Your task to perform on an android device: Clear the cart on walmart.com. Search for "logitech g pro" on walmart.com, select the first entry, and add it to the cart. Image 0: 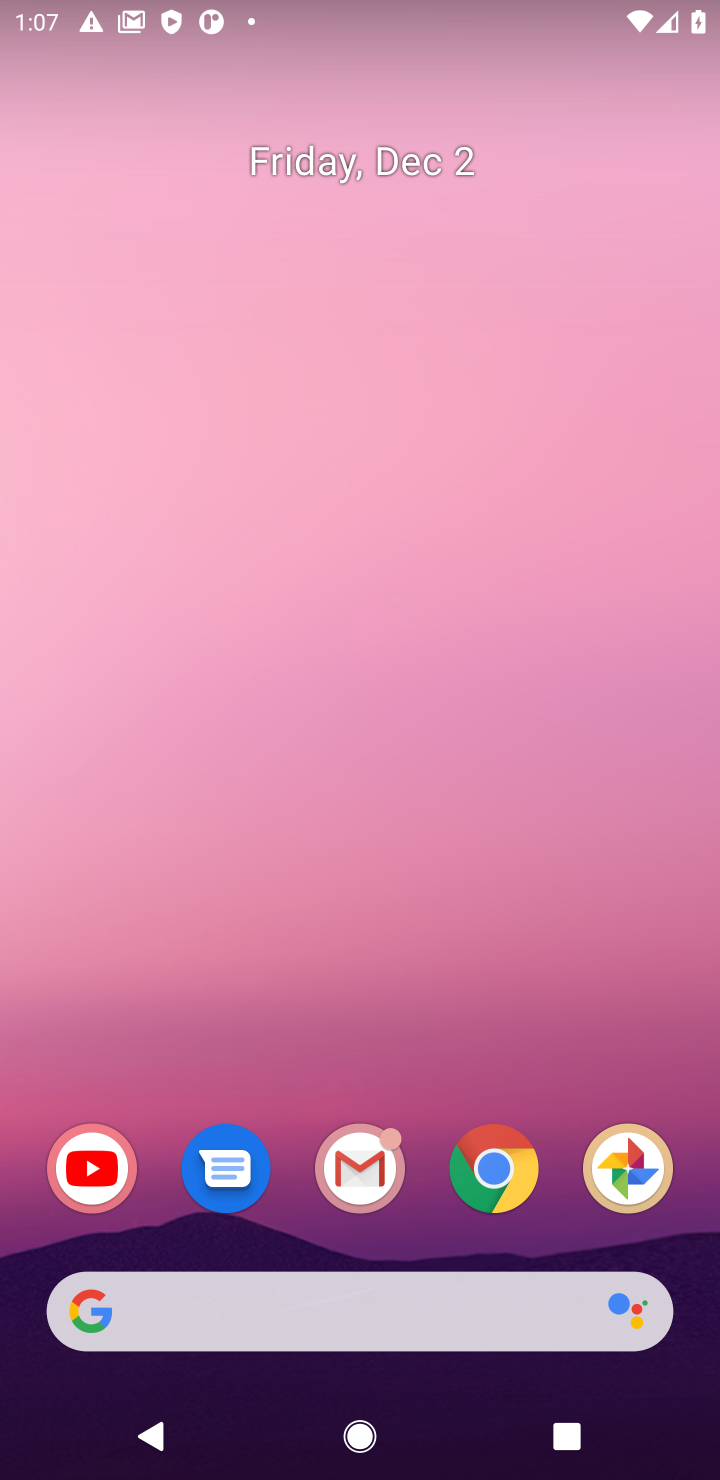
Step 0: click (499, 1175)
Your task to perform on an android device: Clear the cart on walmart.com. Search for "logitech g pro" on walmart.com, select the first entry, and add it to the cart. Image 1: 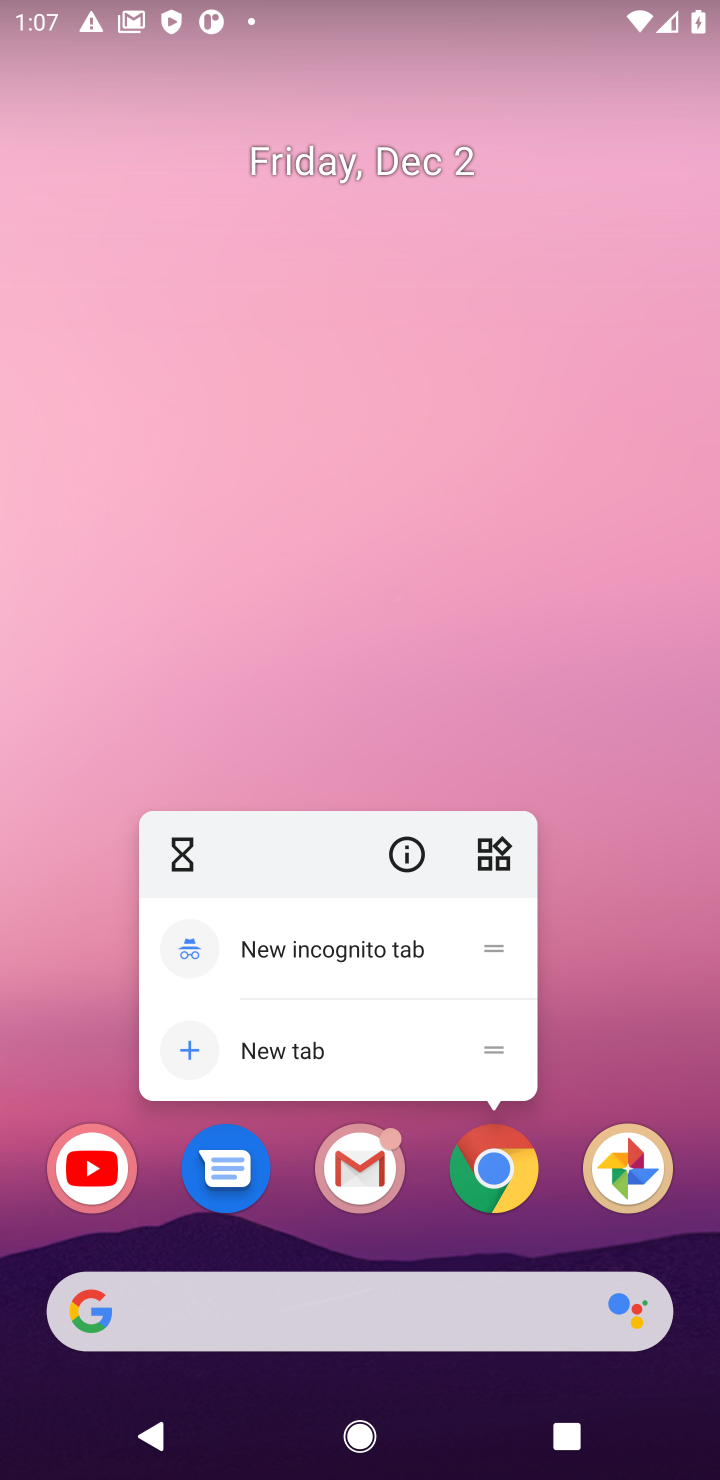
Step 1: click (499, 1175)
Your task to perform on an android device: Clear the cart on walmart.com. Search for "logitech g pro" on walmart.com, select the first entry, and add it to the cart. Image 2: 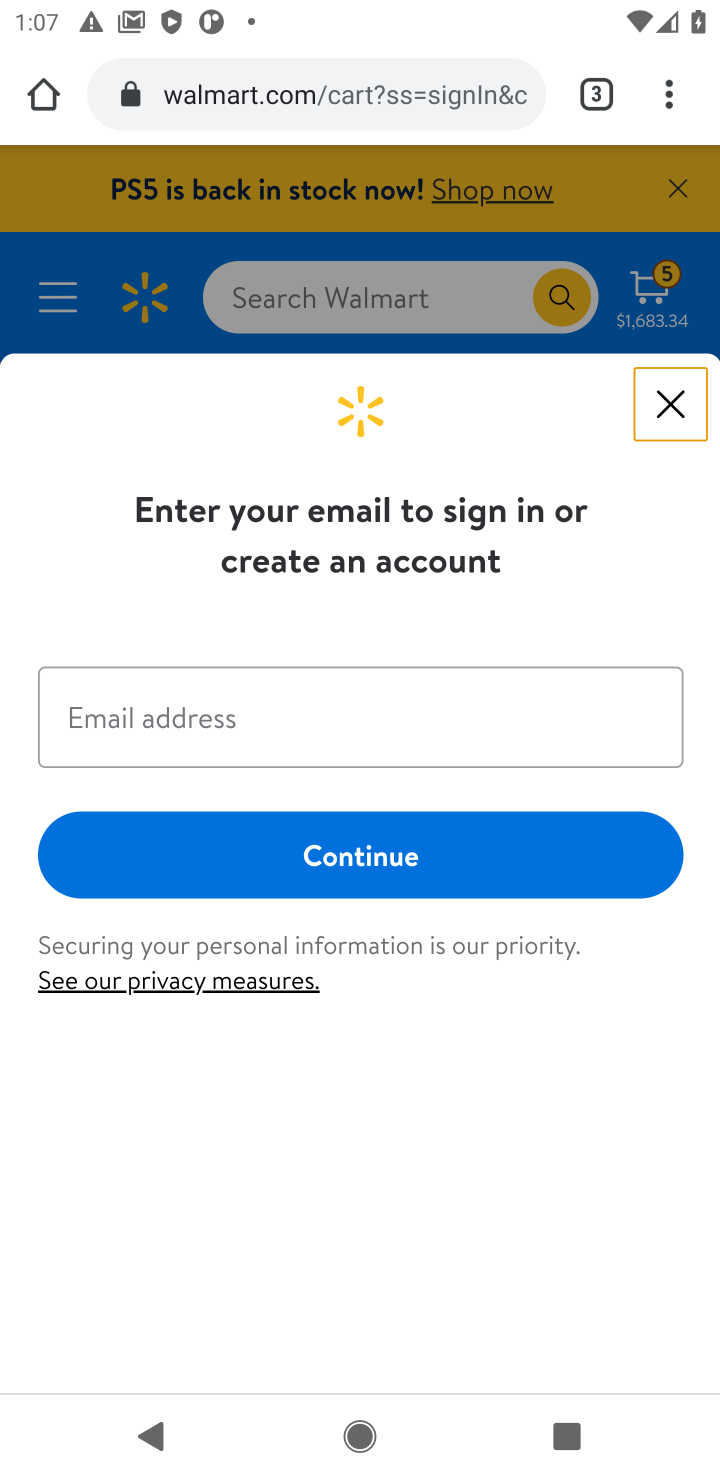
Step 2: click (663, 400)
Your task to perform on an android device: Clear the cart on walmart.com. Search for "logitech g pro" on walmart.com, select the first entry, and add it to the cart. Image 3: 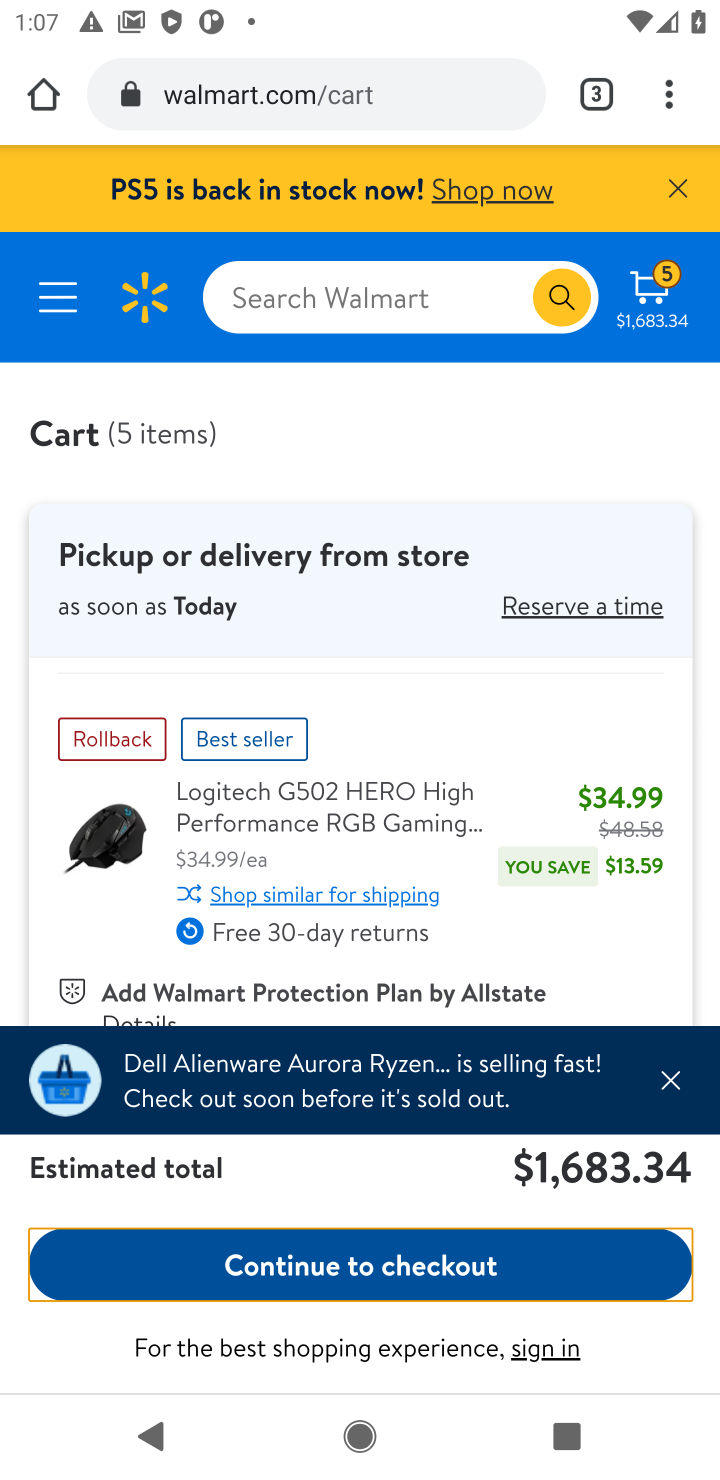
Step 3: drag from (461, 700) to (431, 278)
Your task to perform on an android device: Clear the cart on walmart.com. Search for "logitech g pro" on walmart.com, select the first entry, and add it to the cart. Image 4: 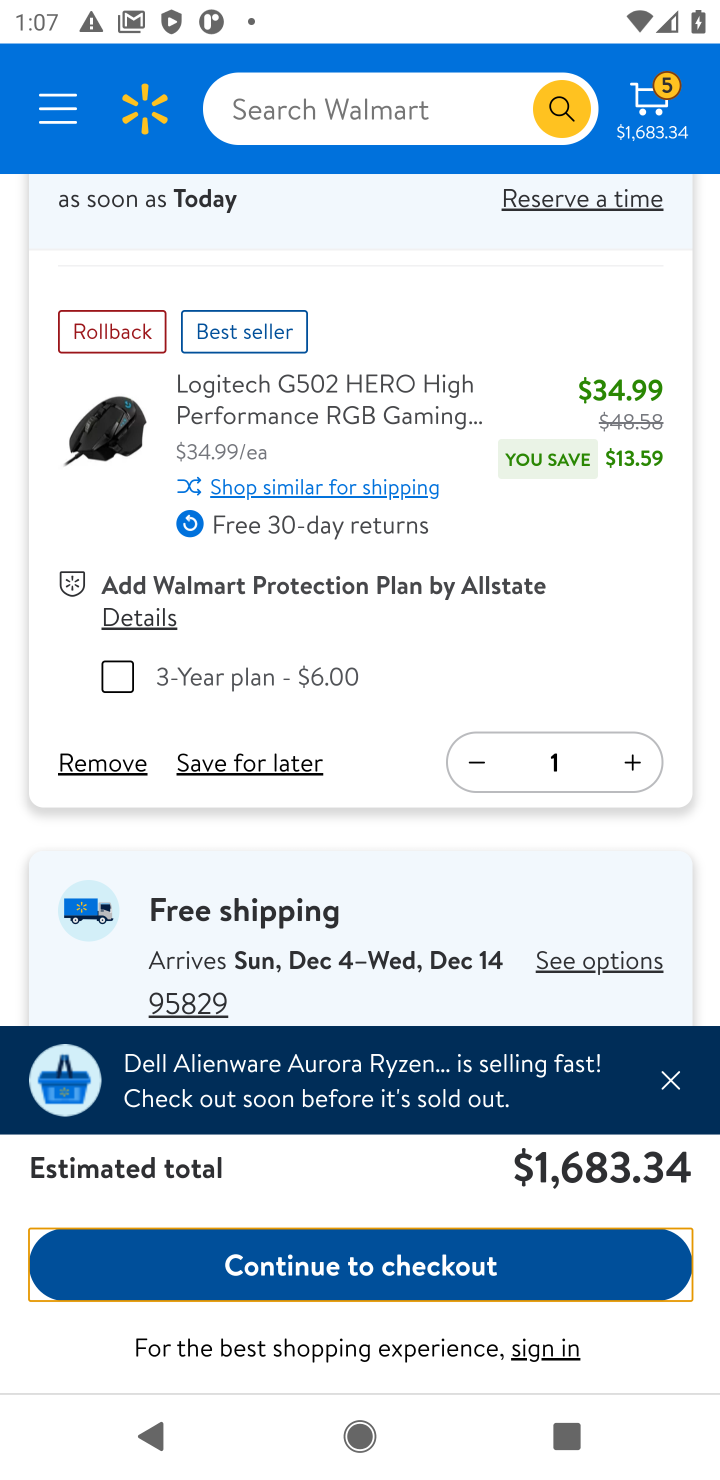
Step 4: click (674, 1083)
Your task to perform on an android device: Clear the cart on walmart.com. Search for "logitech g pro" on walmart.com, select the first entry, and add it to the cart. Image 5: 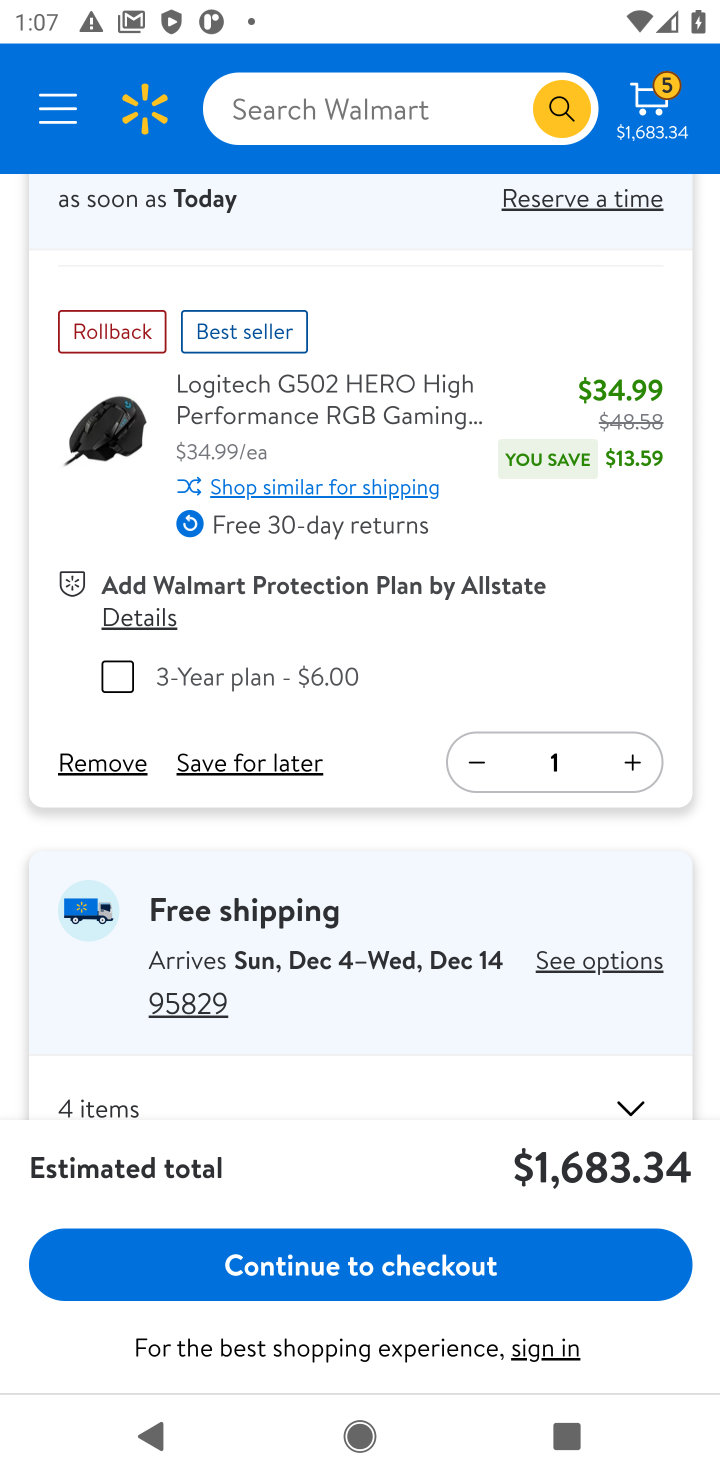
Step 5: click (87, 776)
Your task to perform on an android device: Clear the cart on walmart.com. Search for "logitech g pro" on walmart.com, select the first entry, and add it to the cart. Image 6: 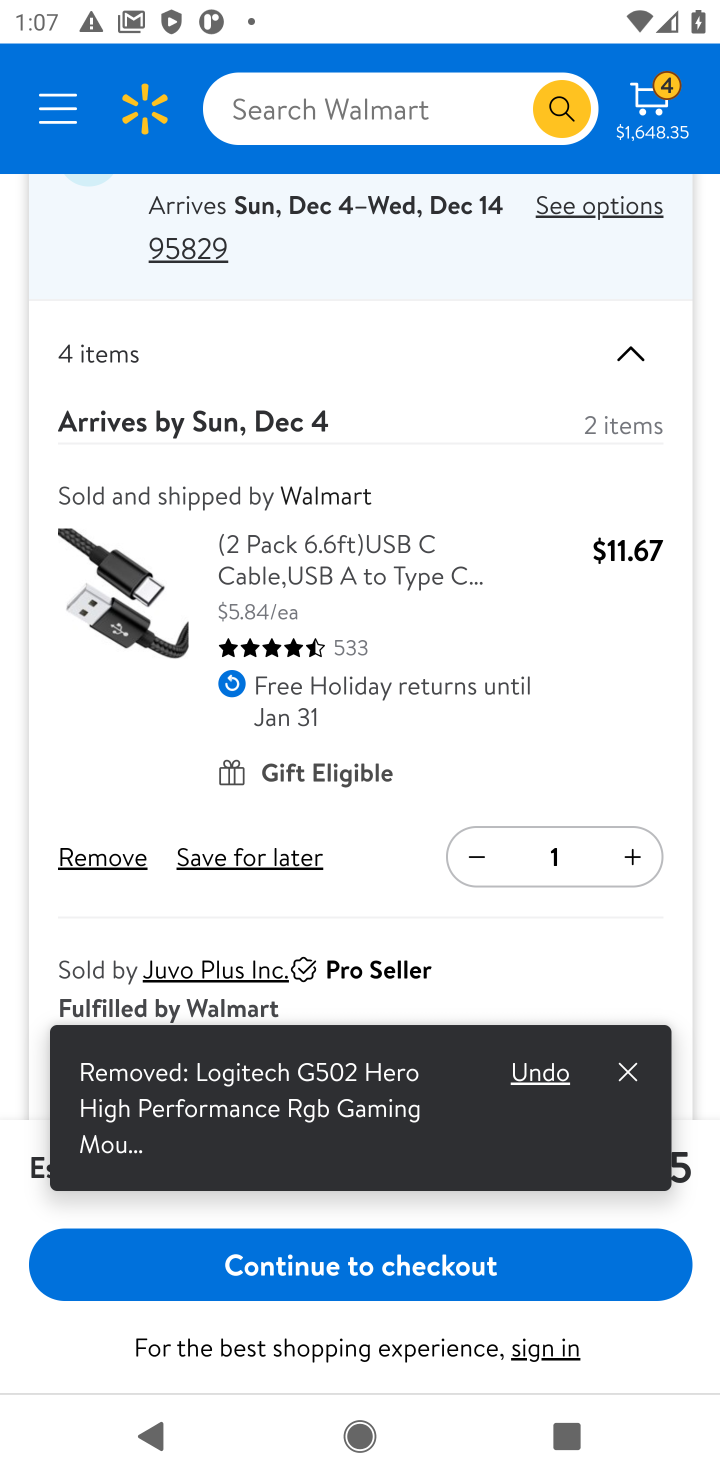
Step 6: click (101, 852)
Your task to perform on an android device: Clear the cart on walmart.com. Search for "logitech g pro" on walmart.com, select the first entry, and add it to the cart. Image 7: 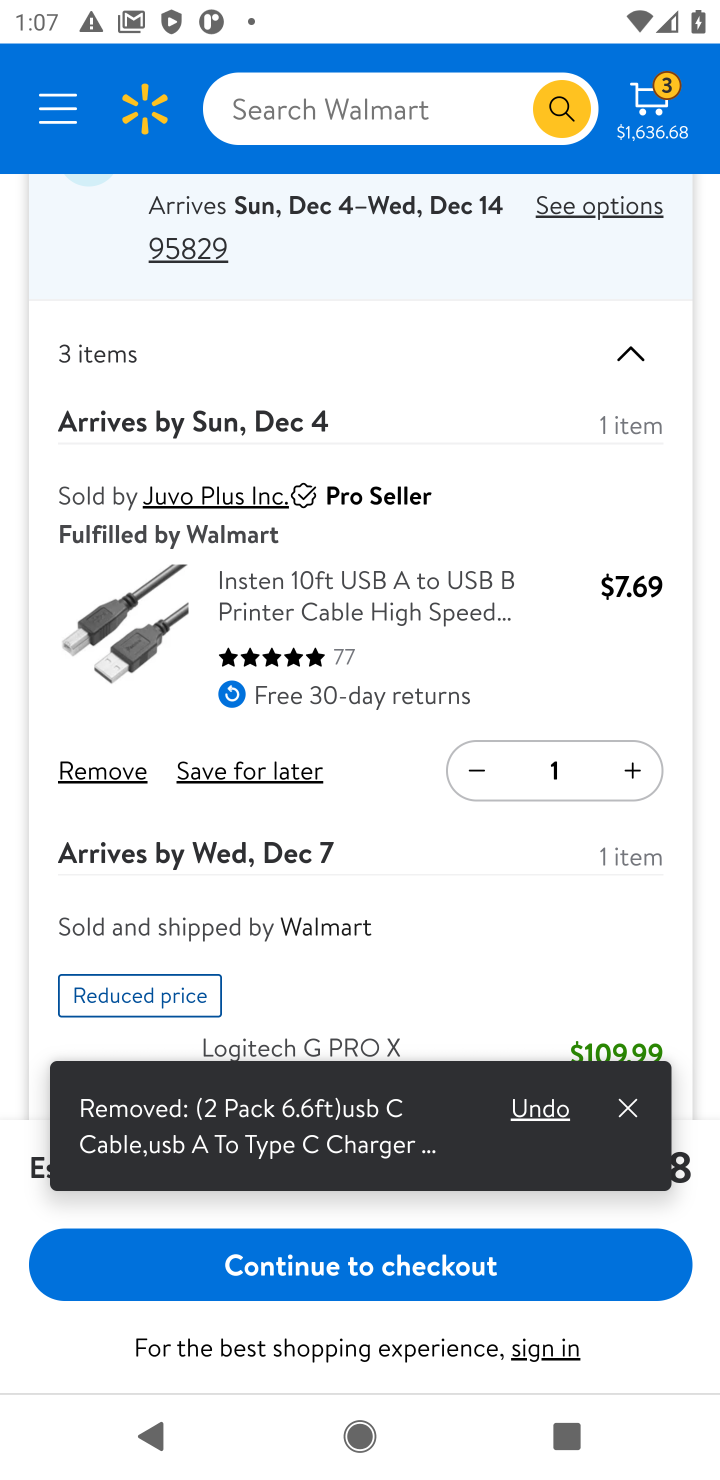
Step 7: click (103, 777)
Your task to perform on an android device: Clear the cart on walmart.com. Search for "logitech g pro" on walmart.com, select the first entry, and add it to the cart. Image 8: 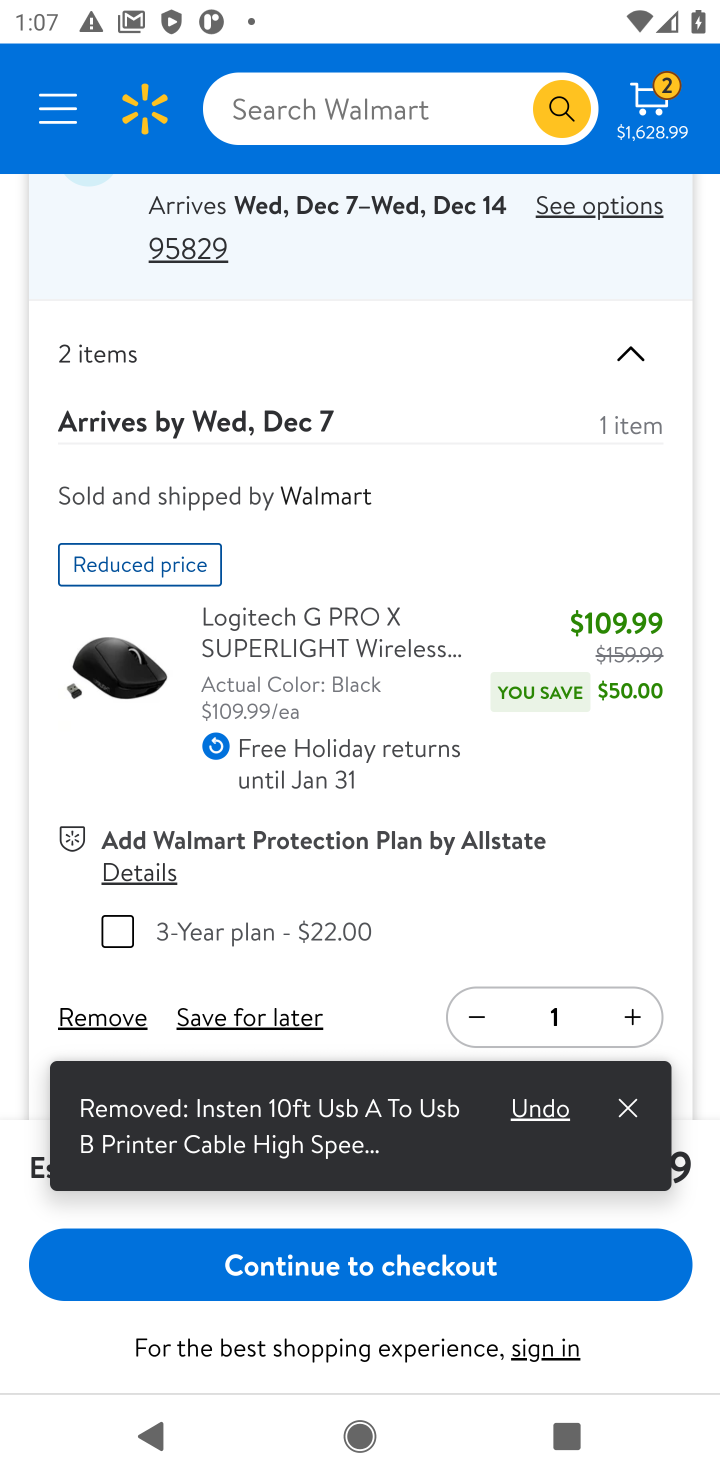
Step 8: click (103, 1020)
Your task to perform on an android device: Clear the cart on walmart.com. Search for "logitech g pro" on walmart.com, select the first entry, and add it to the cart. Image 9: 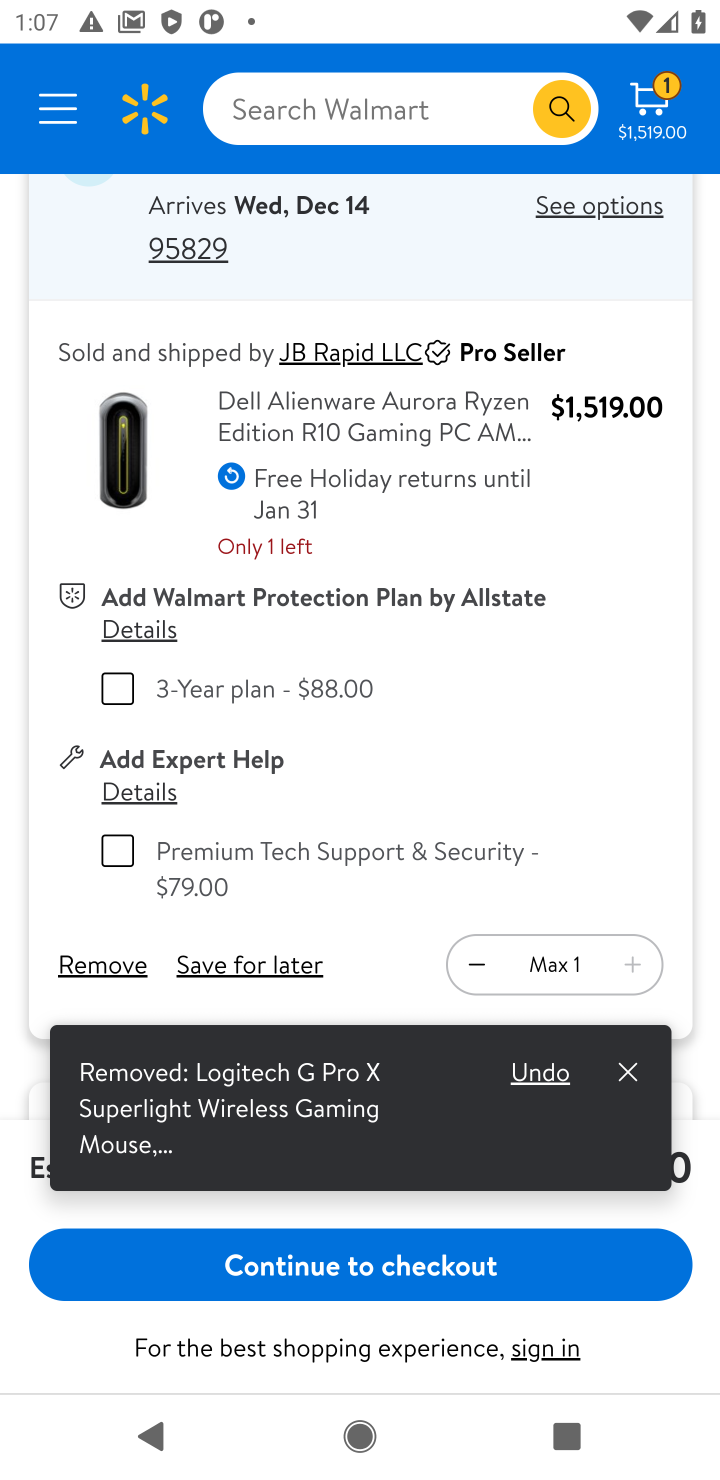
Step 9: click (100, 977)
Your task to perform on an android device: Clear the cart on walmart.com. Search for "logitech g pro" on walmart.com, select the first entry, and add it to the cart. Image 10: 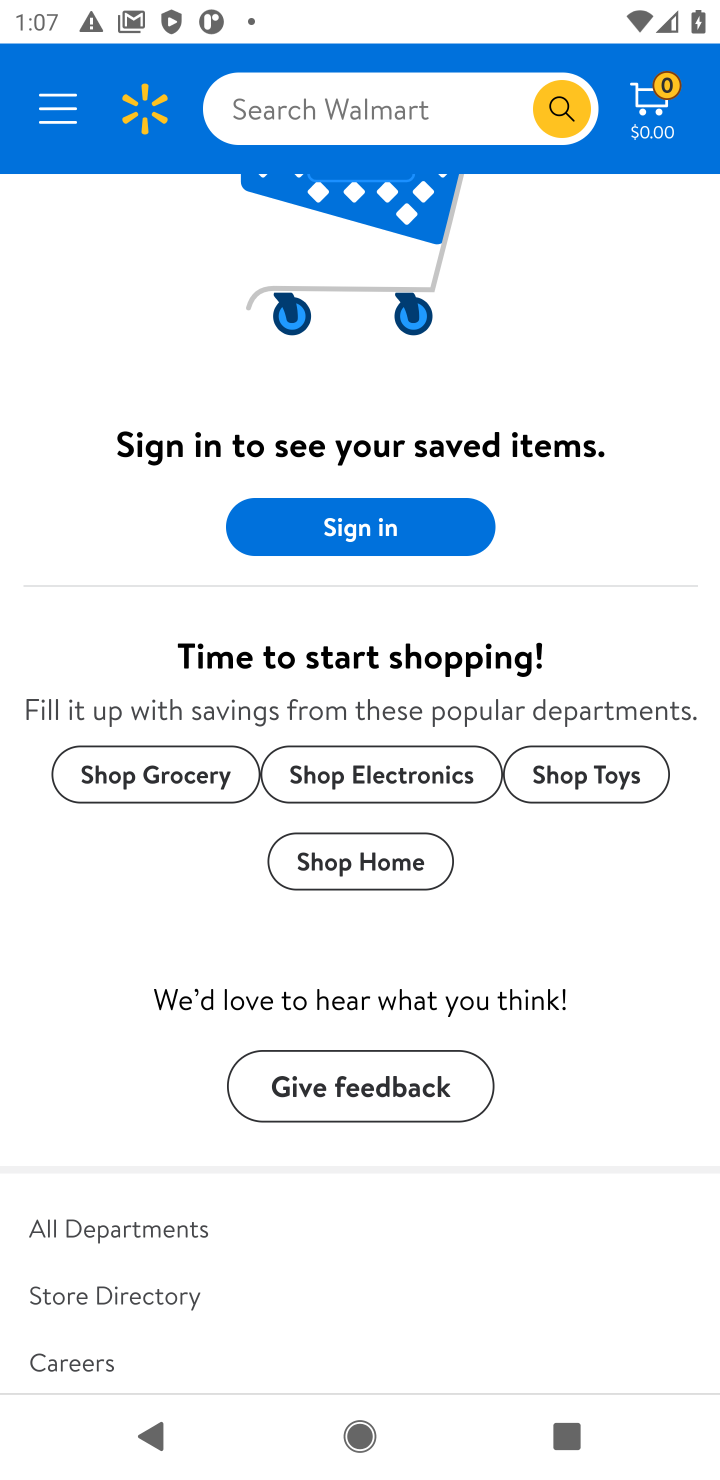
Step 10: click (274, 118)
Your task to perform on an android device: Clear the cart on walmart.com. Search for "logitech g pro" on walmart.com, select the first entry, and add it to the cart. Image 11: 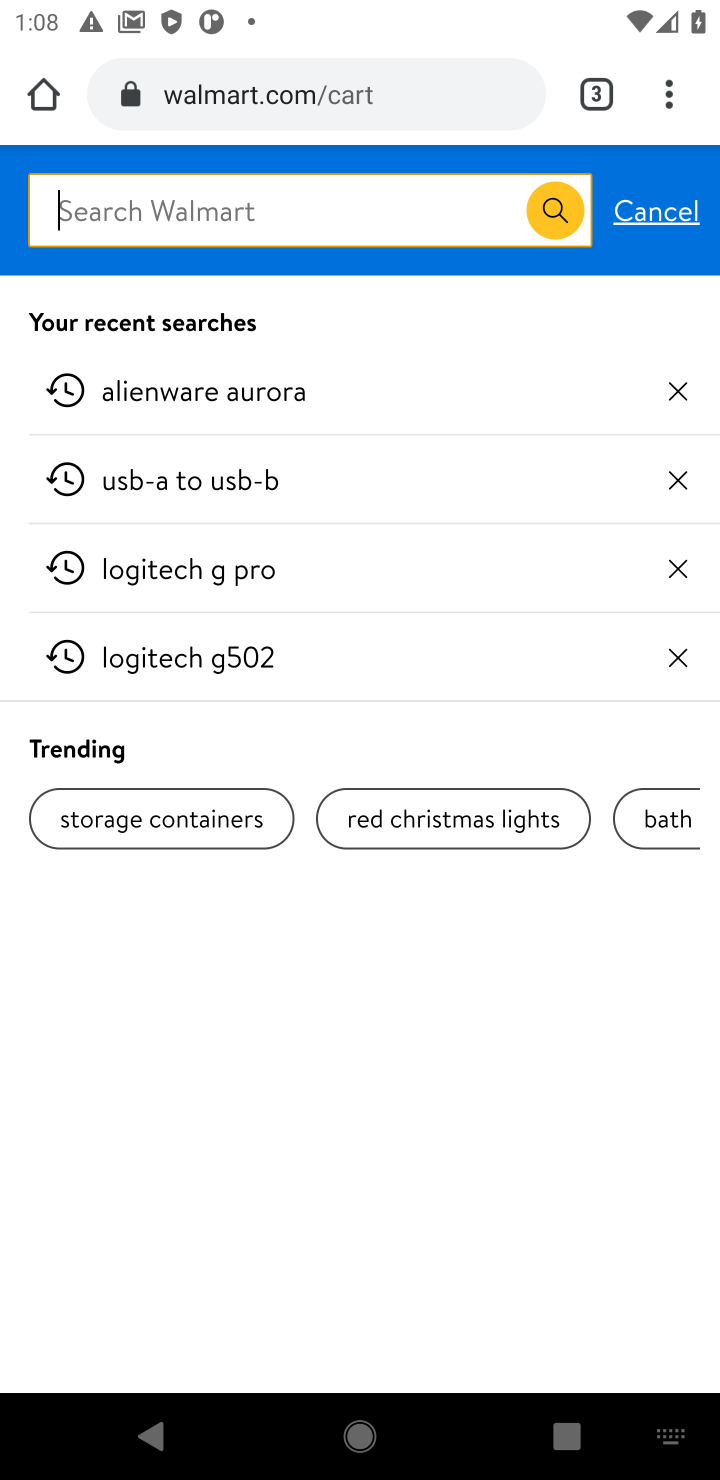
Step 11: type "logitech g pro"
Your task to perform on an android device: Clear the cart on walmart.com. Search for "logitech g pro" on walmart.com, select the first entry, and add it to the cart. Image 12: 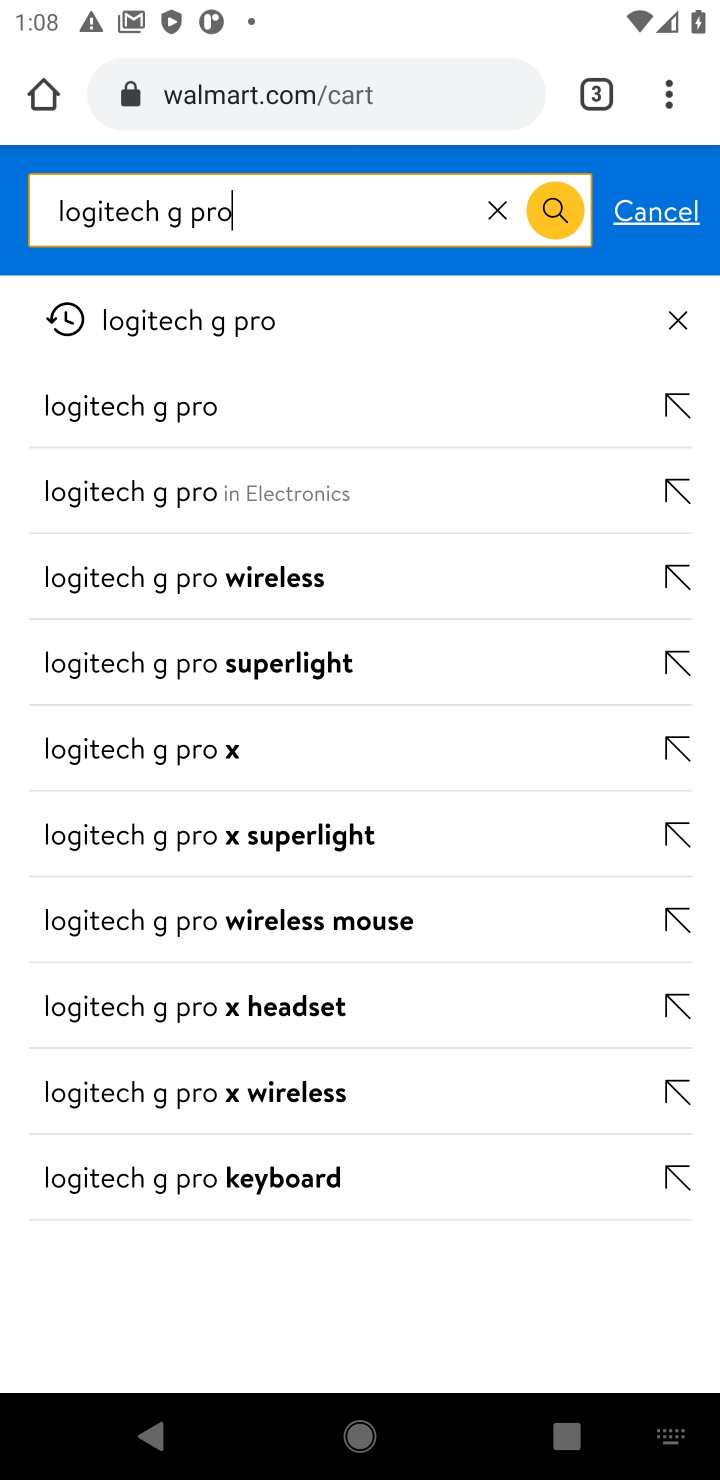
Step 12: click (211, 330)
Your task to perform on an android device: Clear the cart on walmart.com. Search for "logitech g pro" on walmart.com, select the first entry, and add it to the cart. Image 13: 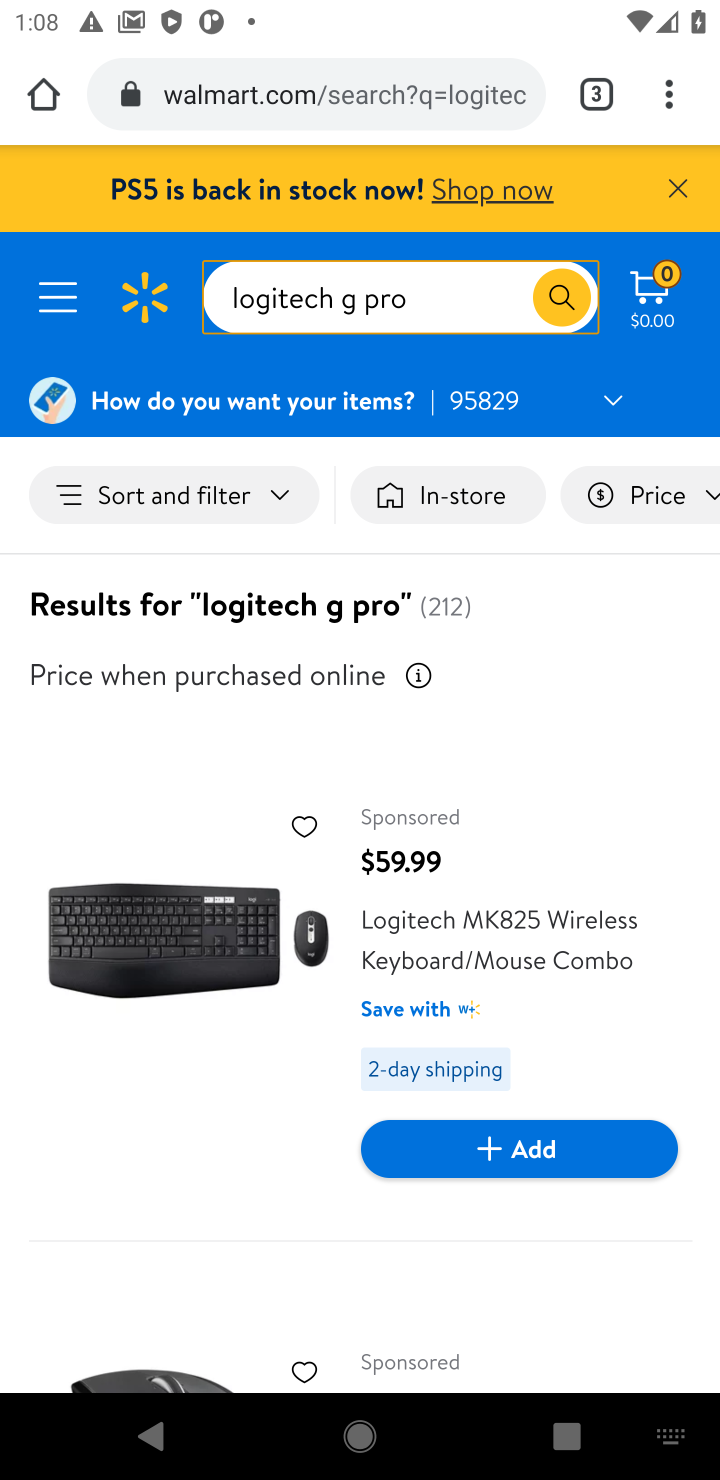
Step 13: task complete